Your task to perform on an android device: show emergency info Image 0: 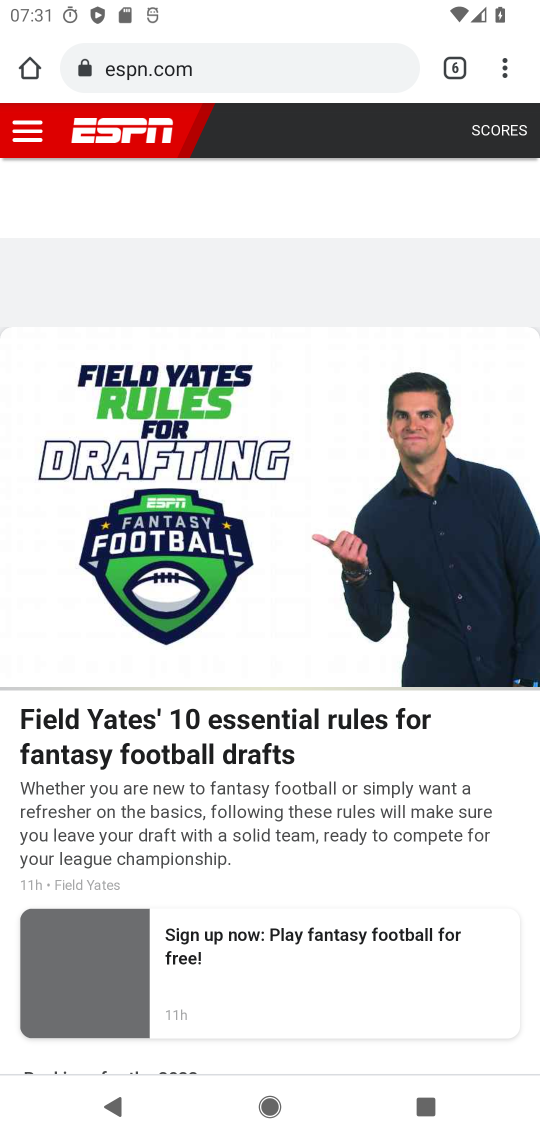
Step 0: press home button
Your task to perform on an android device: show emergency info Image 1: 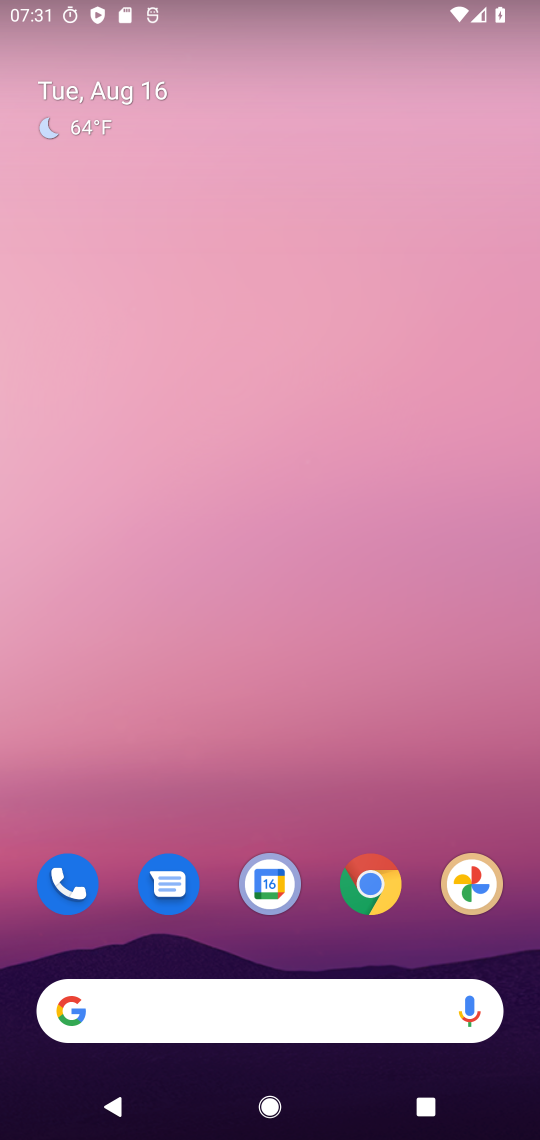
Step 1: click (271, 153)
Your task to perform on an android device: show emergency info Image 2: 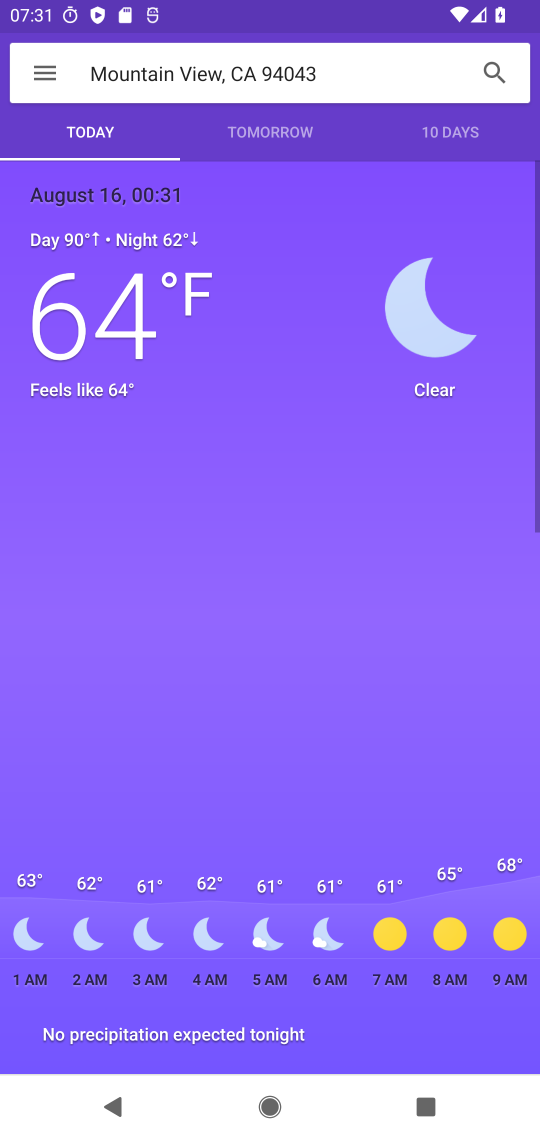
Step 2: press home button
Your task to perform on an android device: show emergency info Image 3: 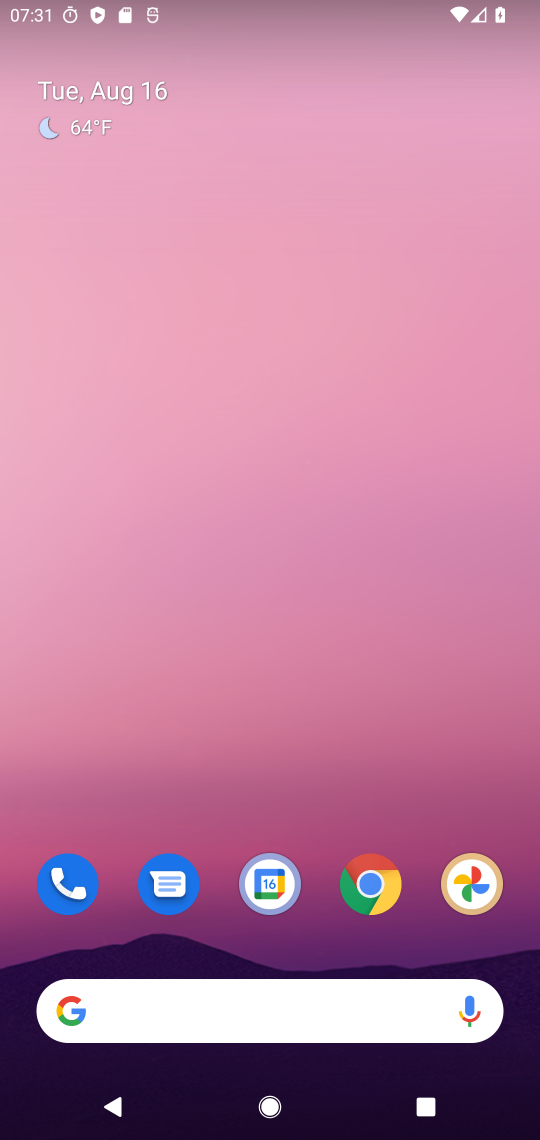
Step 3: click (302, 132)
Your task to perform on an android device: show emergency info Image 4: 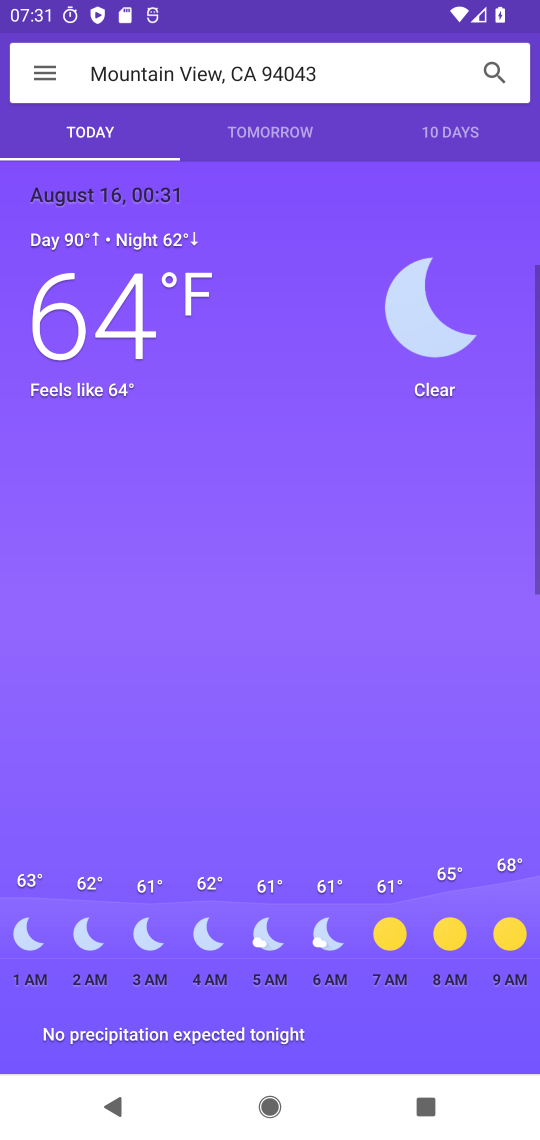
Step 4: click (261, 188)
Your task to perform on an android device: show emergency info Image 5: 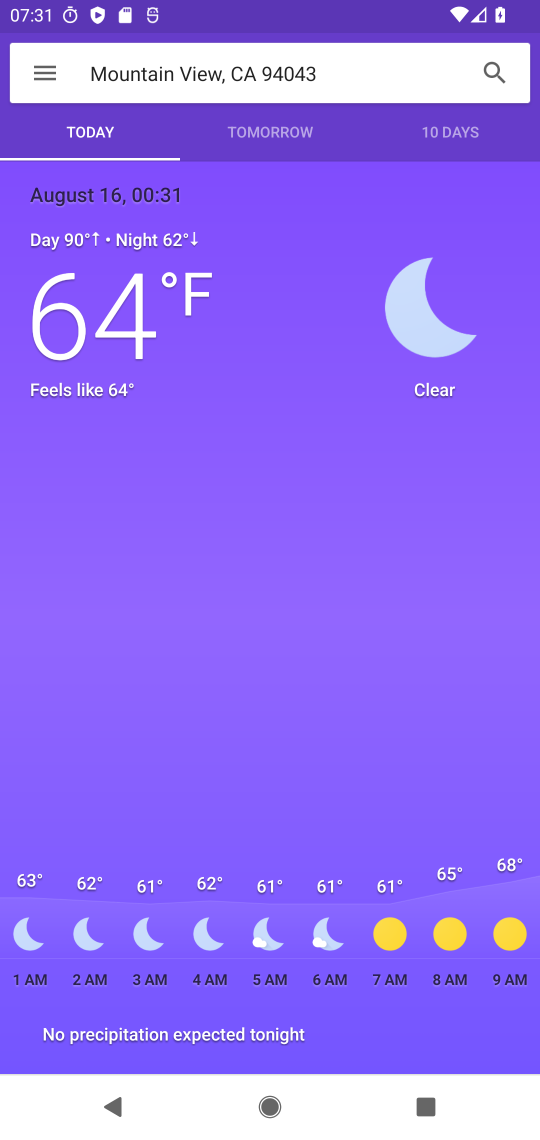
Step 5: press home button
Your task to perform on an android device: show emergency info Image 6: 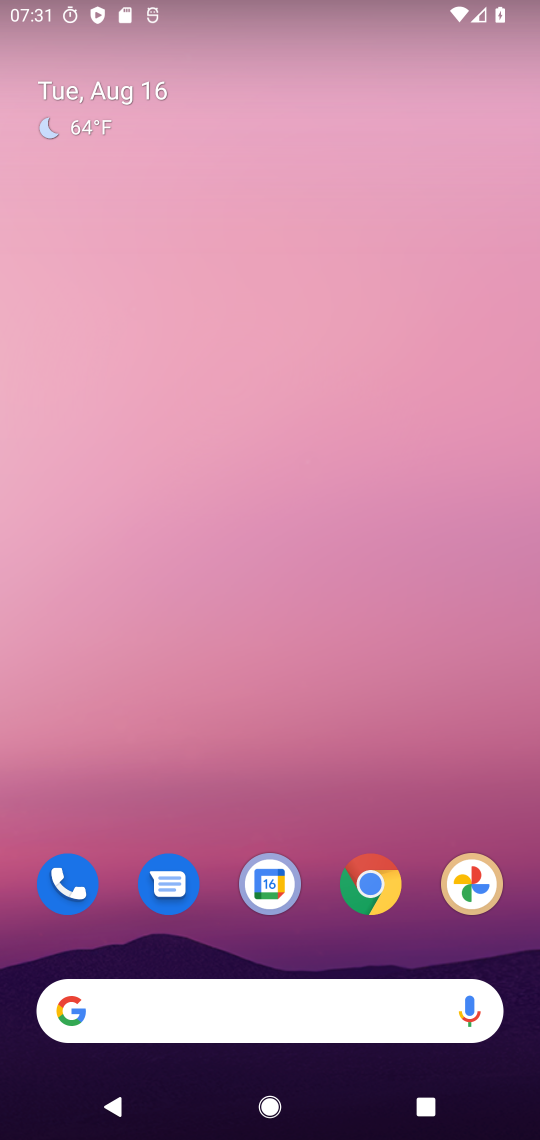
Step 6: drag from (221, 675) to (259, 32)
Your task to perform on an android device: show emergency info Image 7: 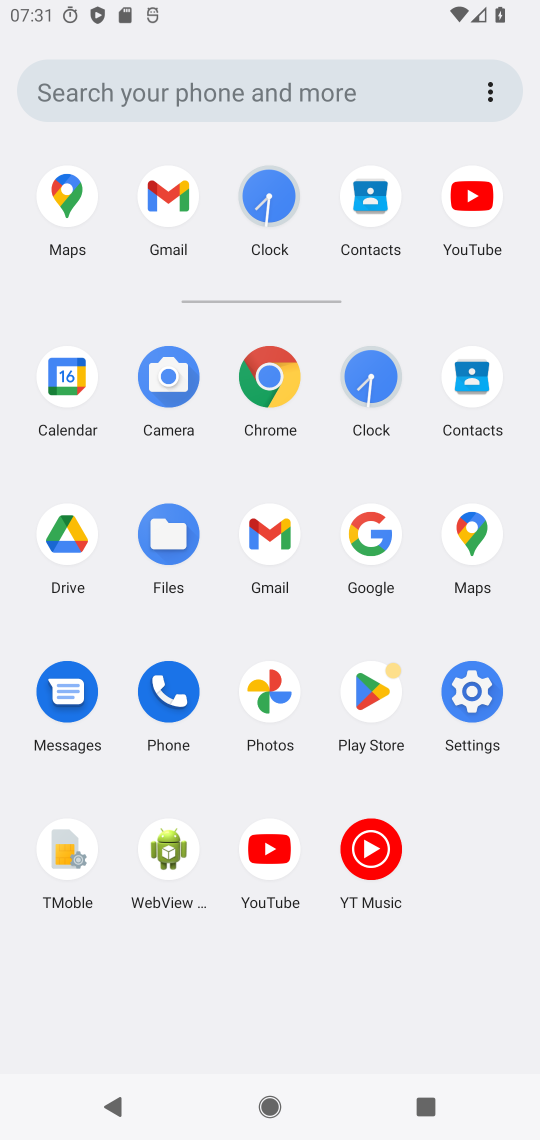
Step 7: click (464, 693)
Your task to perform on an android device: show emergency info Image 8: 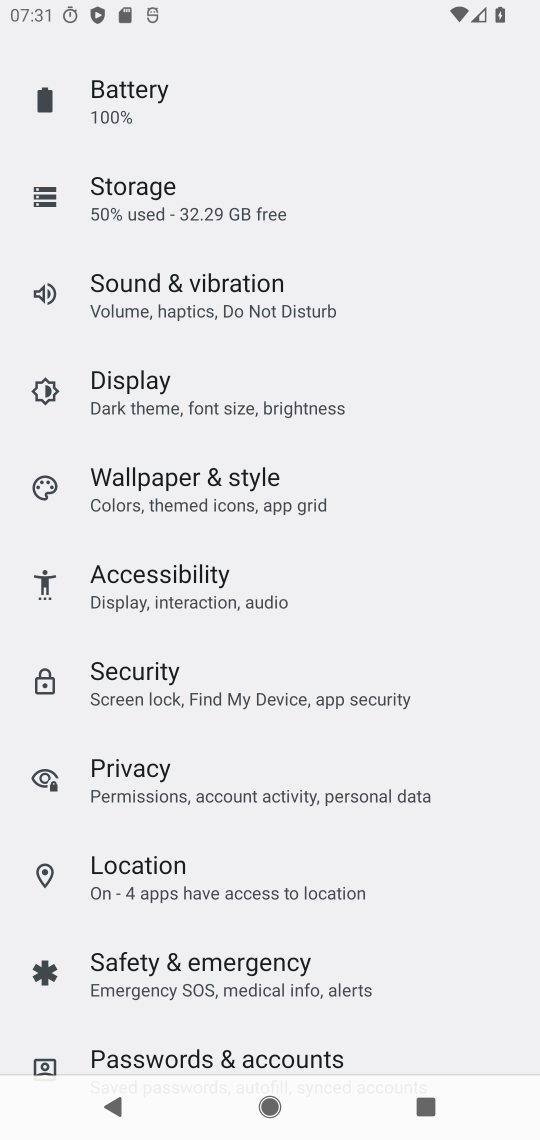
Step 8: click (345, 987)
Your task to perform on an android device: show emergency info Image 9: 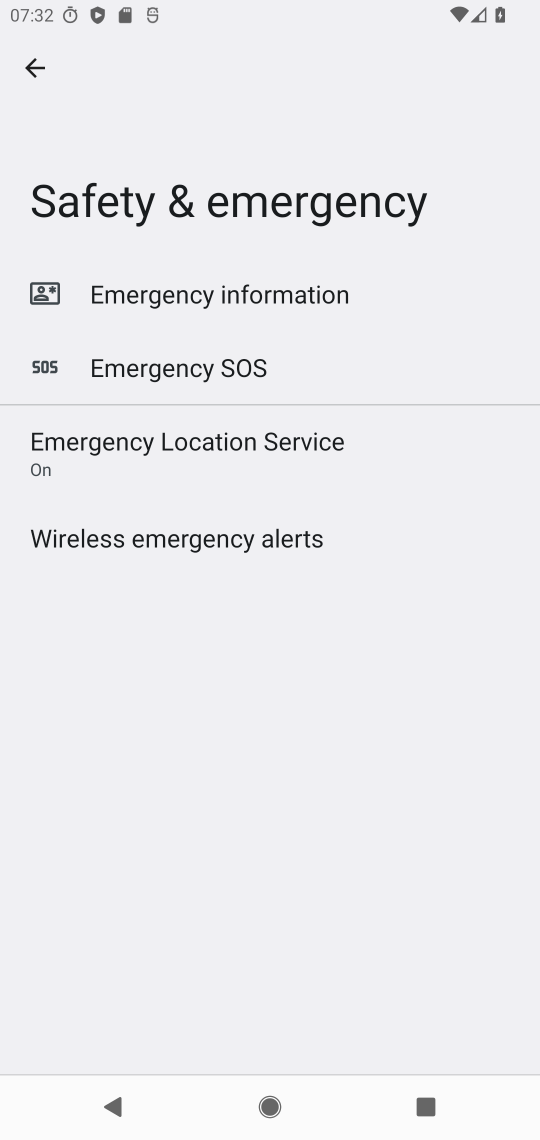
Step 9: click (201, 300)
Your task to perform on an android device: show emergency info Image 10: 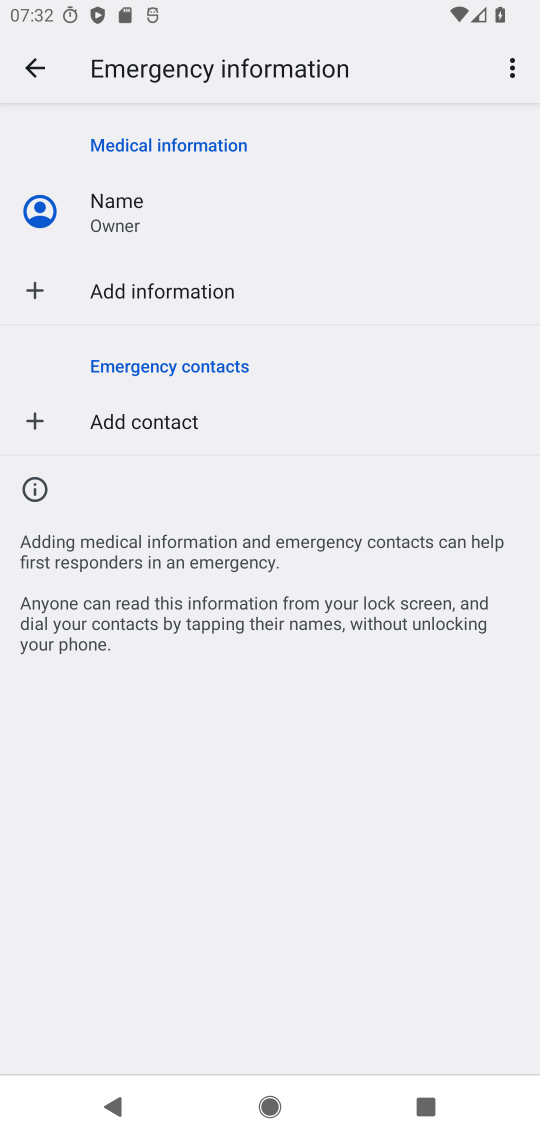
Step 10: task complete